Your task to perform on an android device: Show me the alarms in the clock app Image 0: 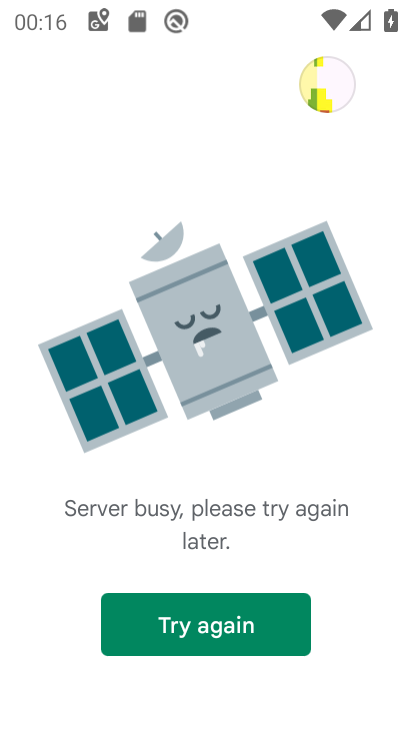
Step 0: press home button
Your task to perform on an android device: Show me the alarms in the clock app Image 1: 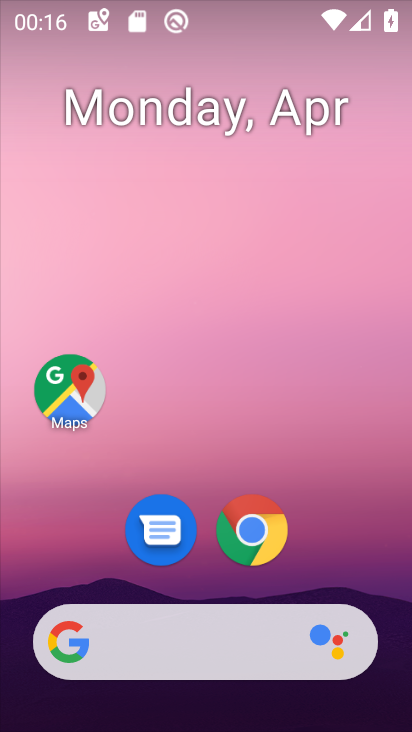
Step 1: drag from (193, 624) to (239, 162)
Your task to perform on an android device: Show me the alarms in the clock app Image 2: 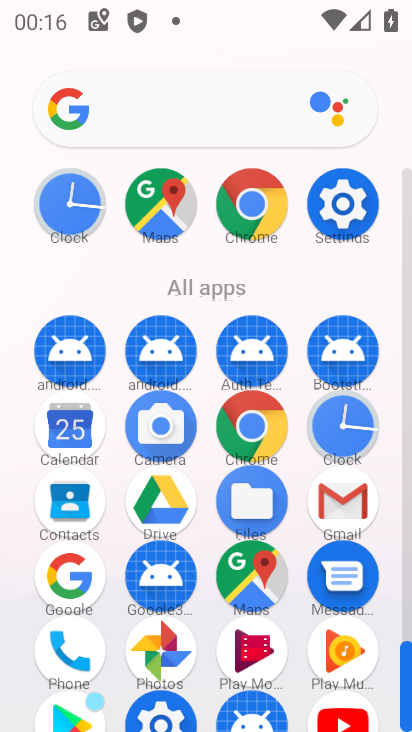
Step 2: click (350, 433)
Your task to perform on an android device: Show me the alarms in the clock app Image 3: 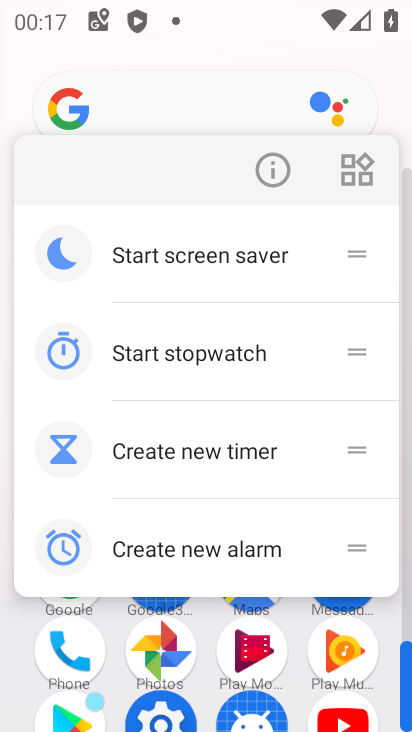
Step 3: drag from (167, 688) to (316, 74)
Your task to perform on an android device: Show me the alarms in the clock app Image 4: 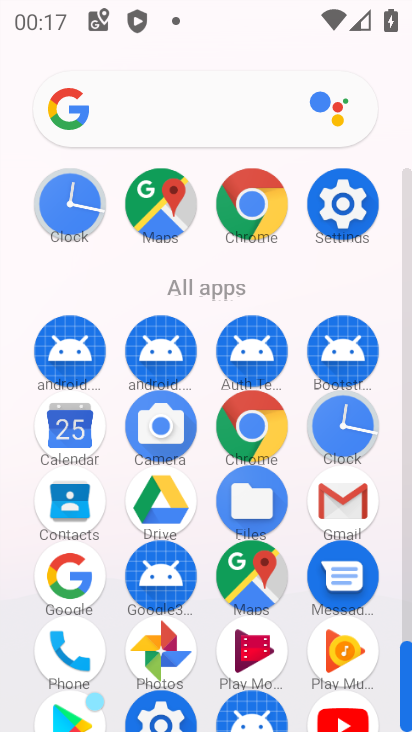
Step 4: click (339, 439)
Your task to perform on an android device: Show me the alarms in the clock app Image 5: 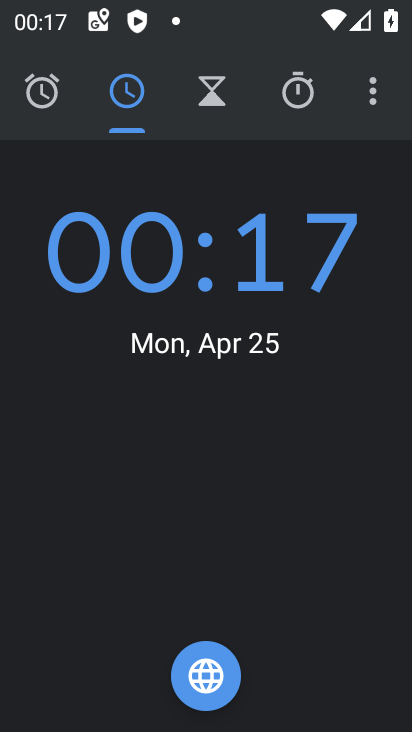
Step 5: click (35, 96)
Your task to perform on an android device: Show me the alarms in the clock app Image 6: 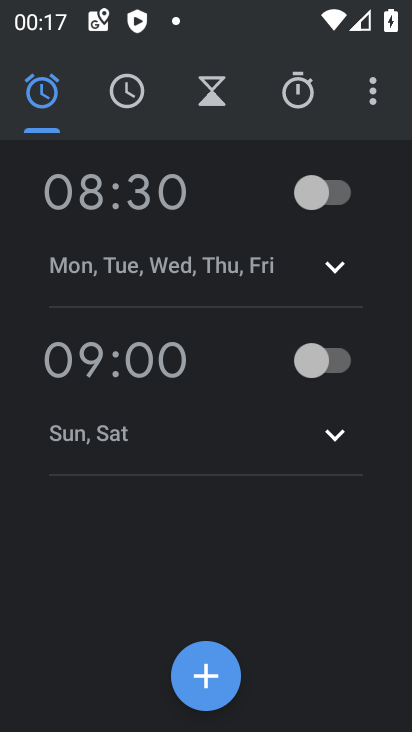
Step 6: task complete